Your task to perform on an android device: Search for sushi restaurants on Maps Image 0: 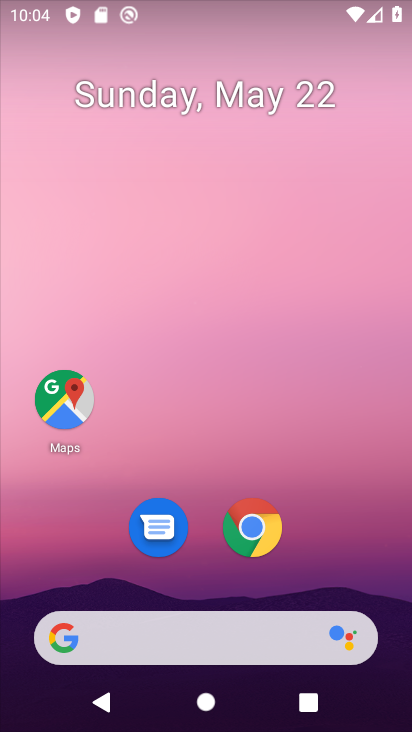
Step 0: drag from (326, 561) to (330, 144)
Your task to perform on an android device: Search for sushi restaurants on Maps Image 1: 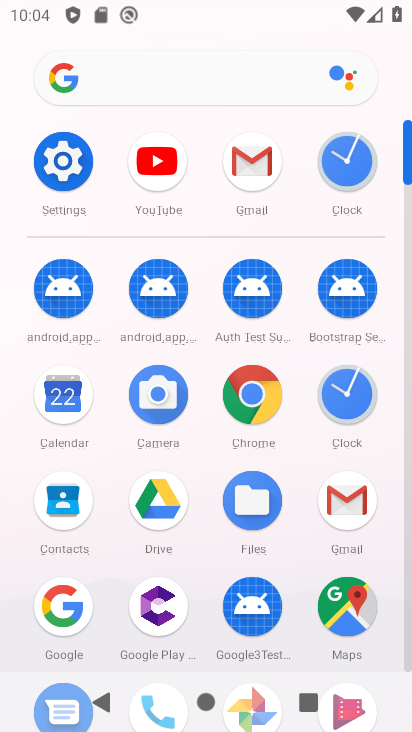
Step 1: click (353, 614)
Your task to perform on an android device: Search for sushi restaurants on Maps Image 2: 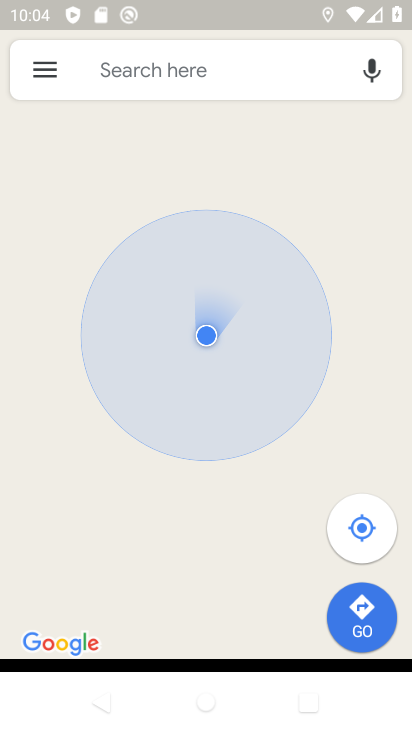
Step 2: click (250, 87)
Your task to perform on an android device: Search for sushi restaurants on Maps Image 3: 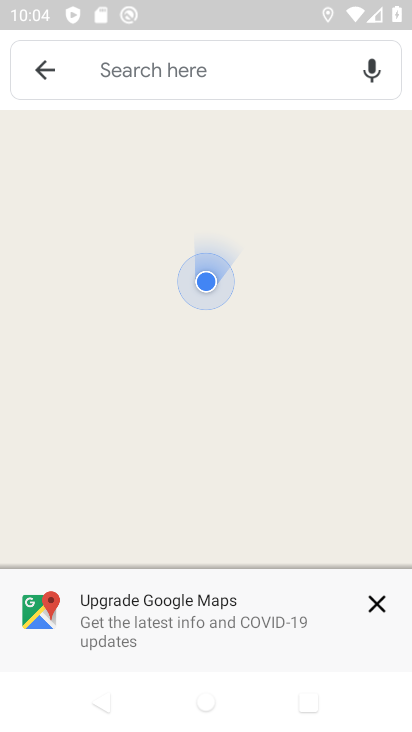
Step 3: click (250, 87)
Your task to perform on an android device: Search for sushi restaurants on Maps Image 4: 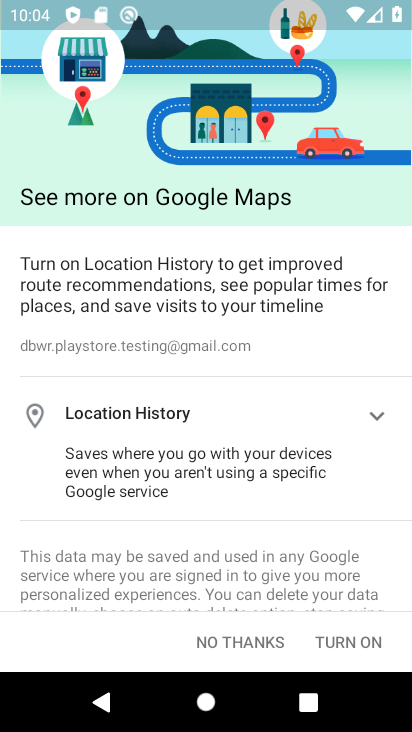
Step 4: type "sushi"
Your task to perform on an android device: Search for sushi restaurants on Maps Image 5: 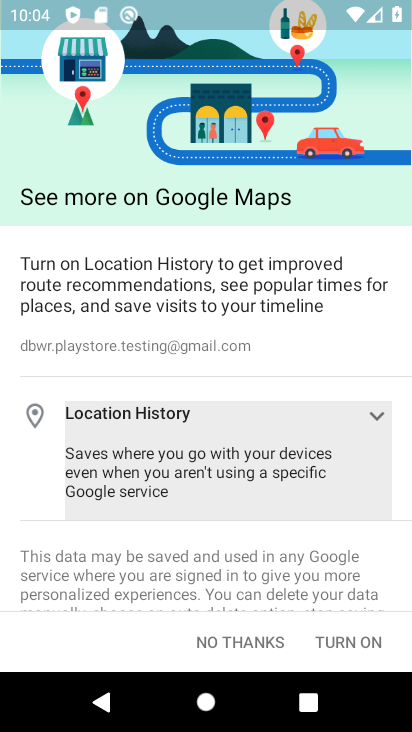
Step 5: click (355, 649)
Your task to perform on an android device: Search for sushi restaurants on Maps Image 6: 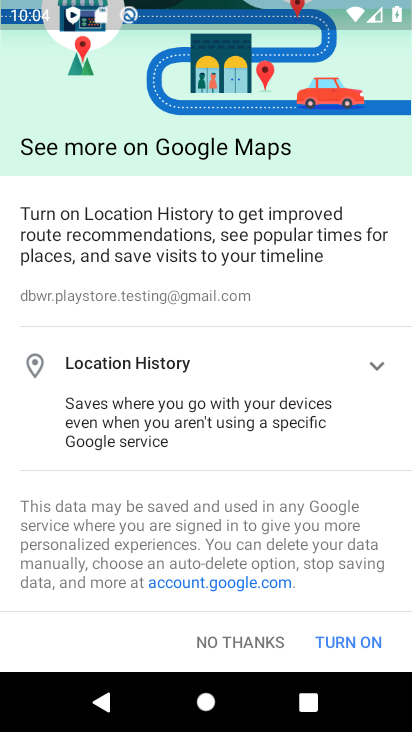
Step 6: click (362, 631)
Your task to perform on an android device: Search for sushi restaurants on Maps Image 7: 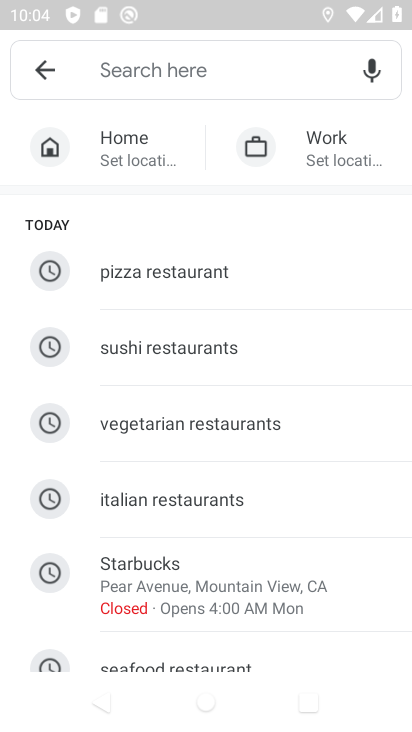
Step 7: click (203, 338)
Your task to perform on an android device: Search for sushi restaurants on Maps Image 8: 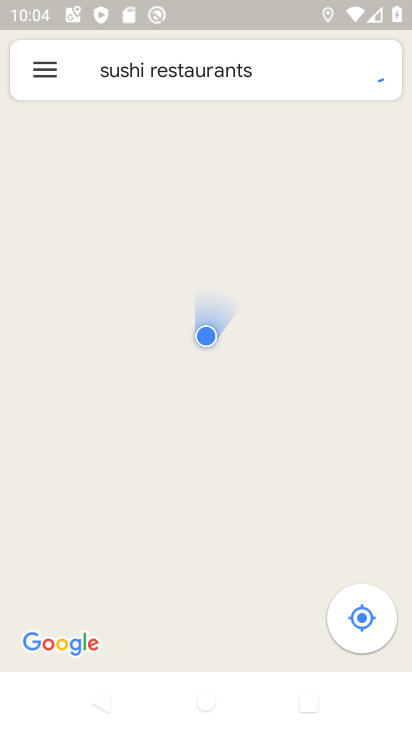
Step 8: task complete